Your task to perform on an android device: Go to calendar. Show me events next week Image 0: 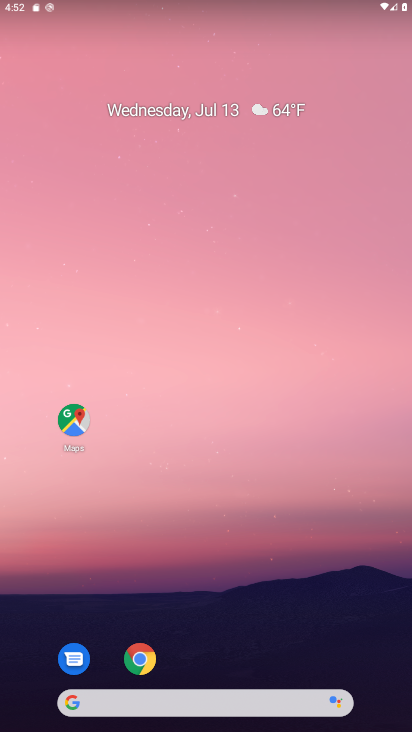
Step 0: drag from (284, 637) to (148, 113)
Your task to perform on an android device: Go to calendar. Show me events next week Image 1: 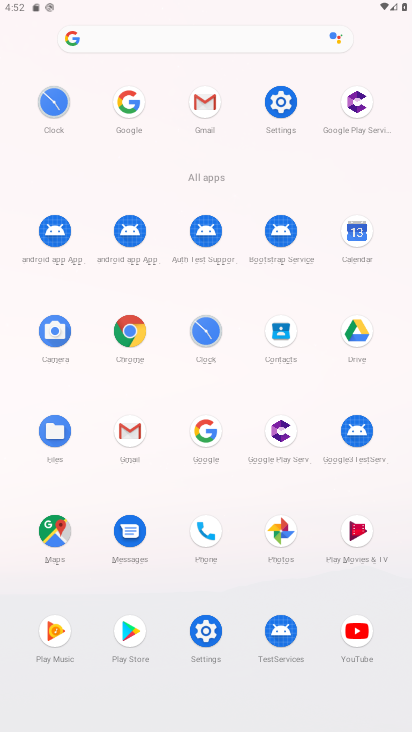
Step 1: click (351, 238)
Your task to perform on an android device: Go to calendar. Show me events next week Image 2: 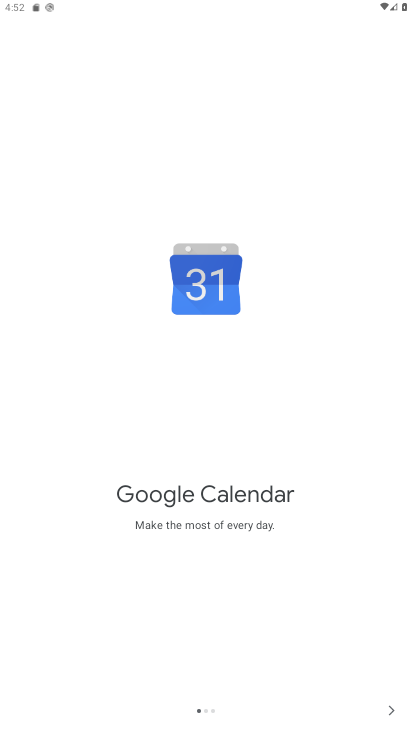
Step 2: click (393, 701)
Your task to perform on an android device: Go to calendar. Show me events next week Image 3: 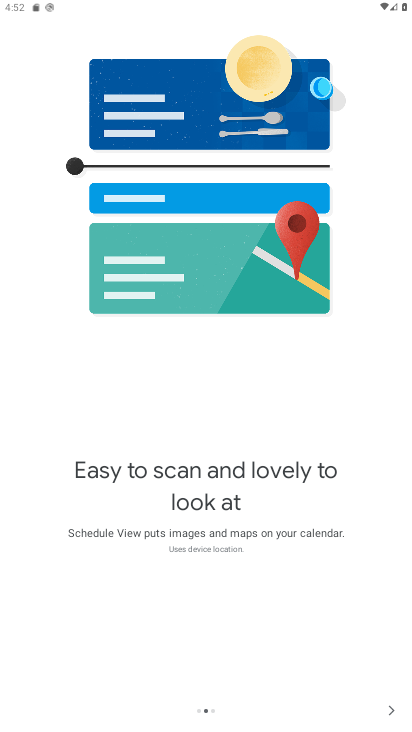
Step 3: click (382, 695)
Your task to perform on an android device: Go to calendar. Show me events next week Image 4: 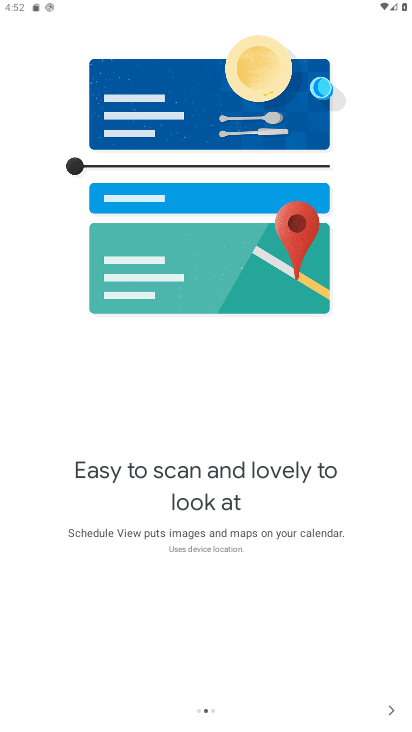
Step 4: click (387, 709)
Your task to perform on an android device: Go to calendar. Show me events next week Image 5: 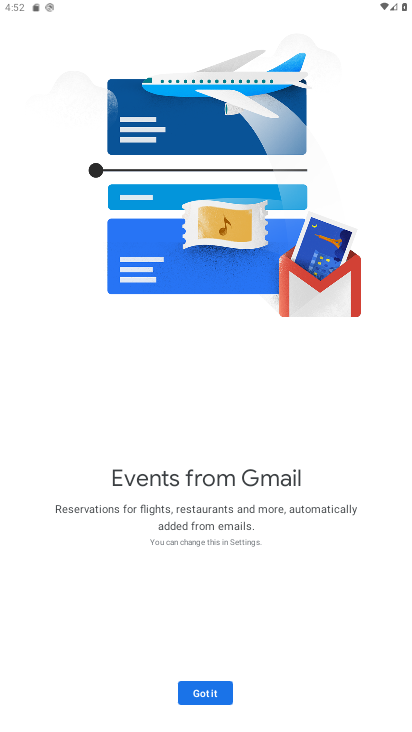
Step 5: click (229, 696)
Your task to perform on an android device: Go to calendar. Show me events next week Image 6: 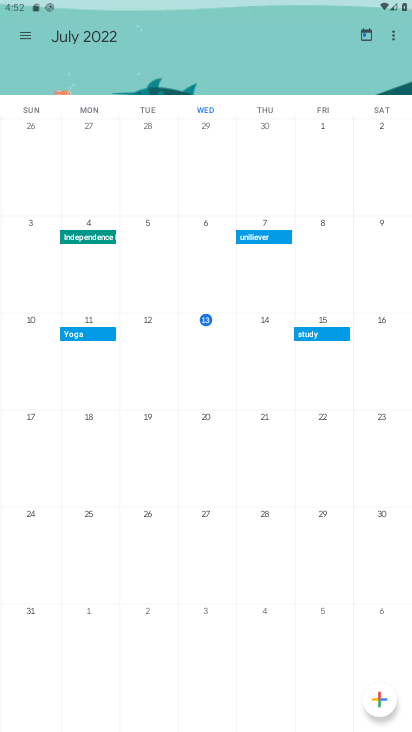
Step 6: click (276, 421)
Your task to perform on an android device: Go to calendar. Show me events next week Image 7: 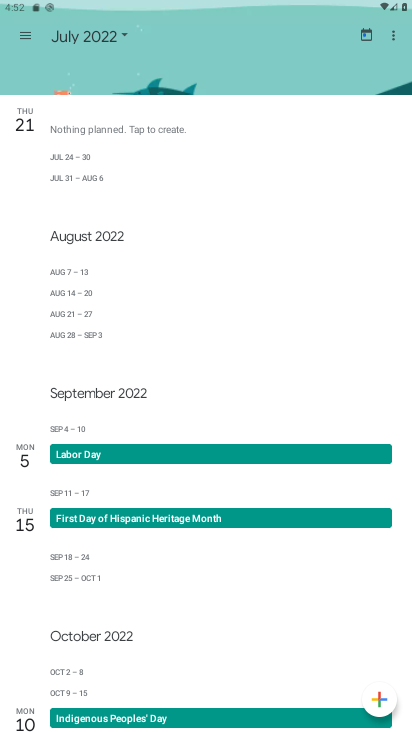
Step 7: task complete